Your task to perform on an android device: open a new tab in the chrome app Image 0: 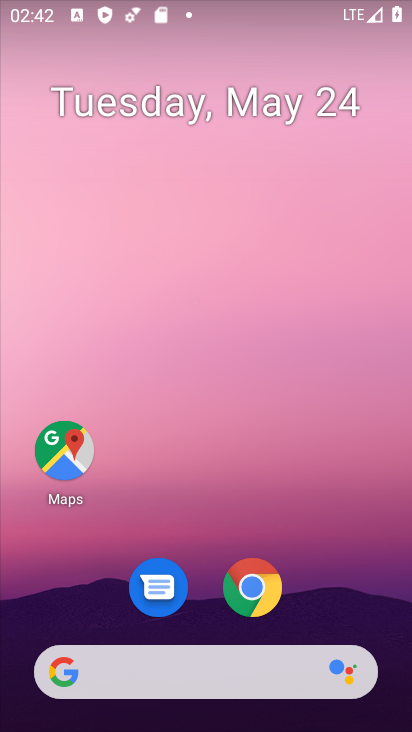
Step 0: click (255, 592)
Your task to perform on an android device: open a new tab in the chrome app Image 1: 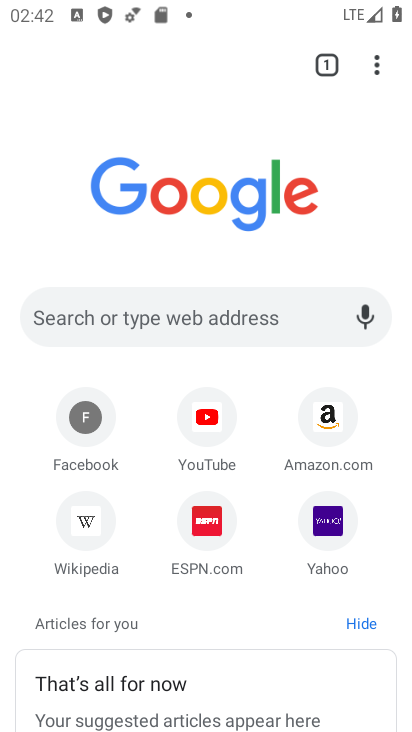
Step 1: click (384, 64)
Your task to perform on an android device: open a new tab in the chrome app Image 2: 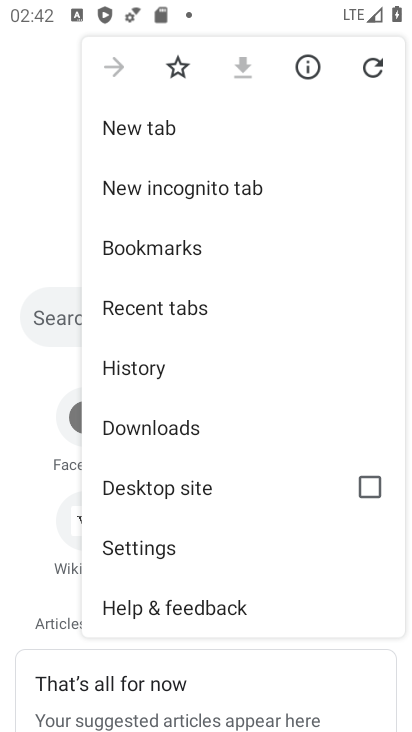
Step 2: click (140, 133)
Your task to perform on an android device: open a new tab in the chrome app Image 3: 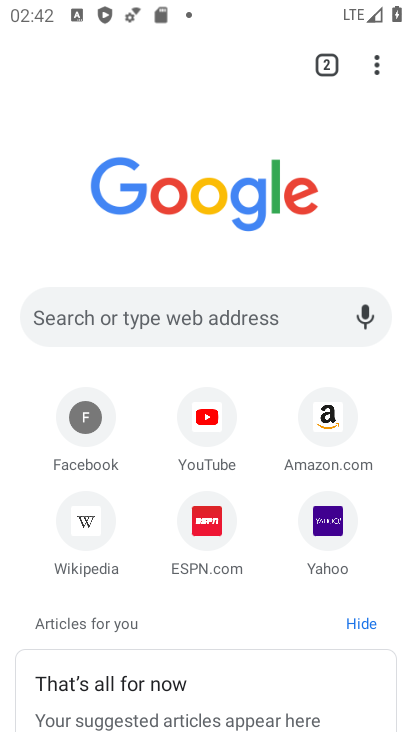
Step 3: click (383, 61)
Your task to perform on an android device: open a new tab in the chrome app Image 4: 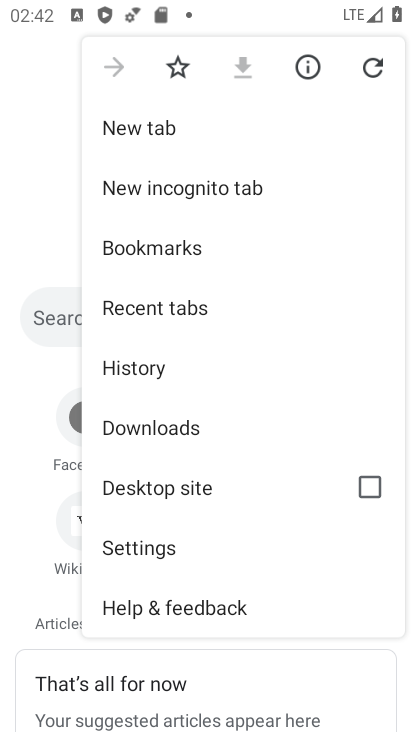
Step 4: click (160, 119)
Your task to perform on an android device: open a new tab in the chrome app Image 5: 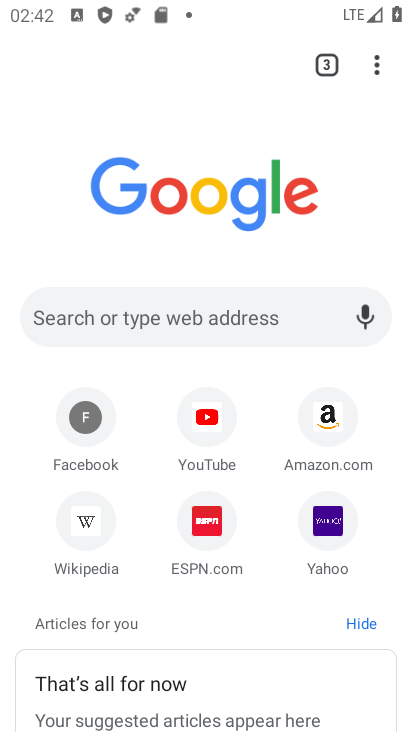
Step 5: task complete